Your task to perform on an android device: Open internet settings Image 0: 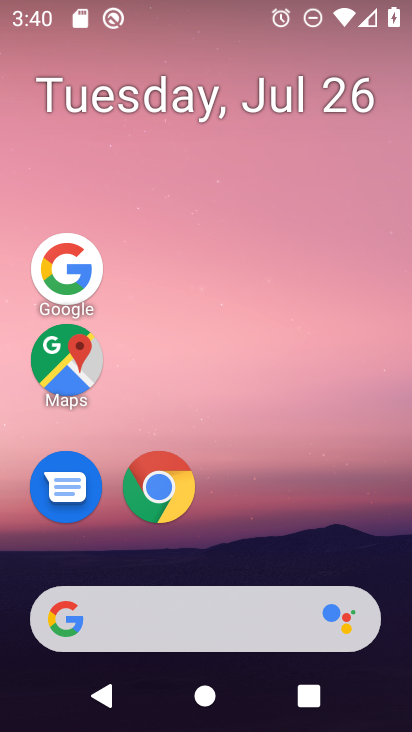
Step 0: drag from (268, 517) to (279, 141)
Your task to perform on an android device: Open internet settings Image 1: 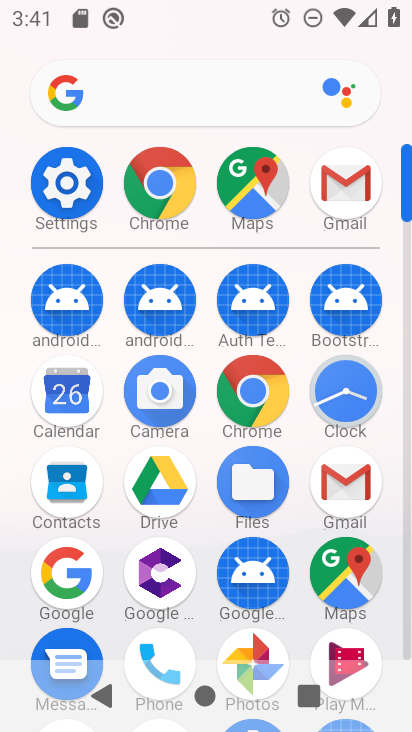
Step 1: click (84, 204)
Your task to perform on an android device: Open internet settings Image 2: 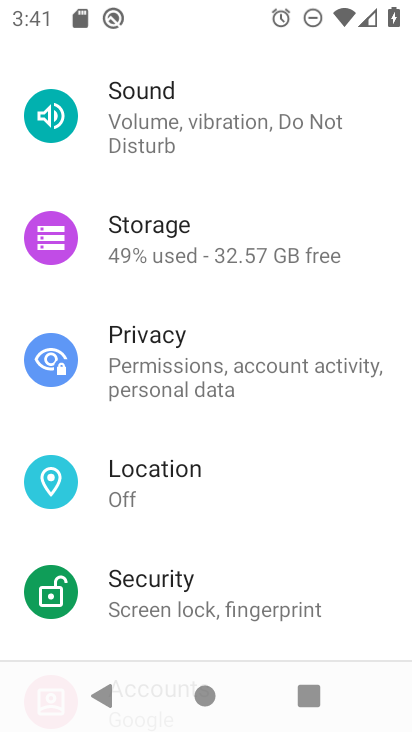
Step 2: drag from (214, 238) to (226, 714)
Your task to perform on an android device: Open internet settings Image 3: 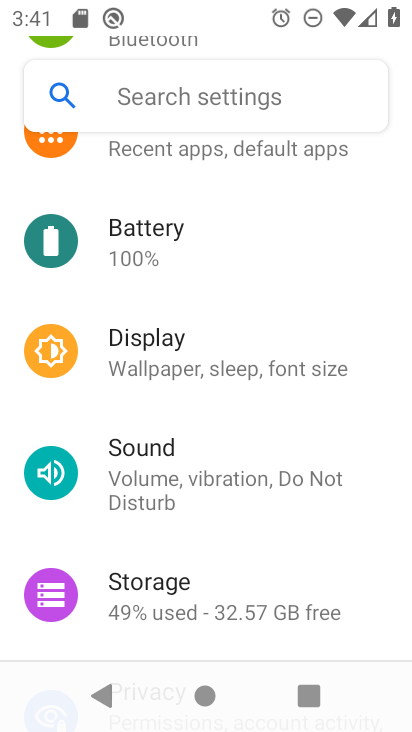
Step 3: drag from (226, 215) to (244, 649)
Your task to perform on an android device: Open internet settings Image 4: 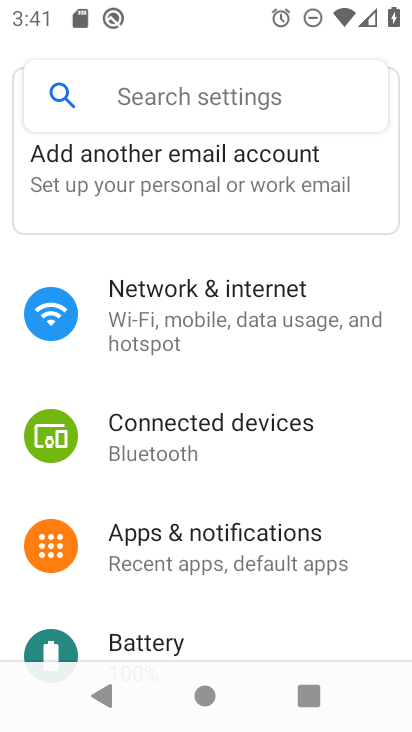
Step 4: click (272, 314)
Your task to perform on an android device: Open internet settings Image 5: 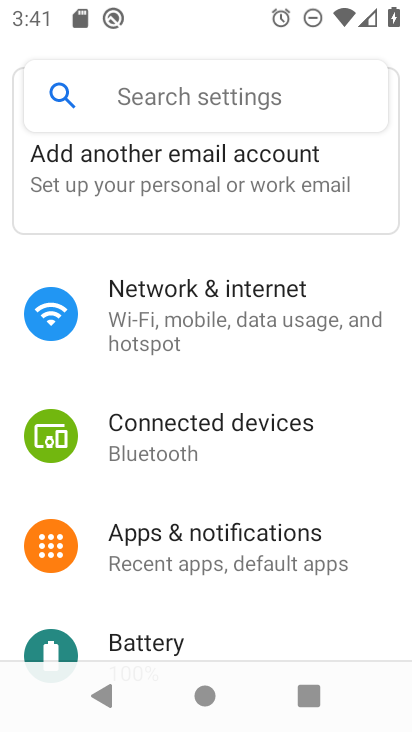
Step 5: click (296, 323)
Your task to perform on an android device: Open internet settings Image 6: 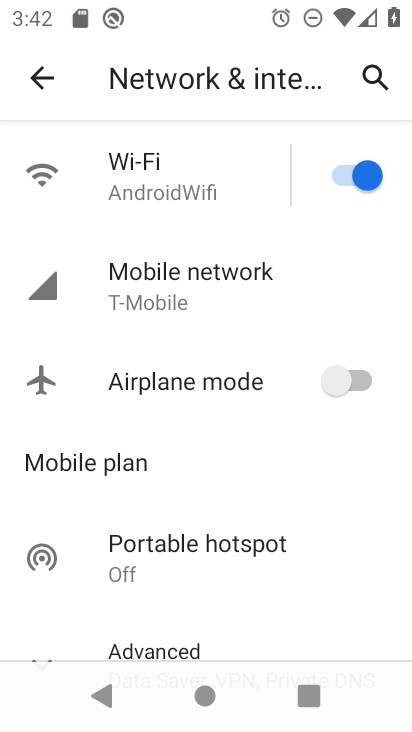
Step 6: click (179, 281)
Your task to perform on an android device: Open internet settings Image 7: 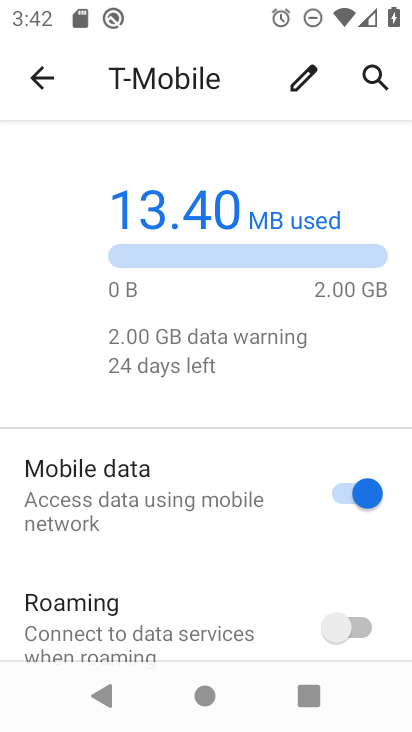
Step 7: task complete